Your task to perform on an android device: Is it going to rain today? Image 0: 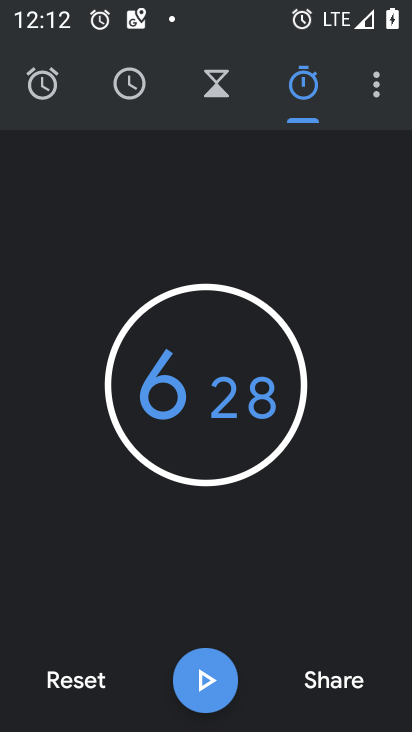
Step 0: press home button
Your task to perform on an android device: Is it going to rain today? Image 1: 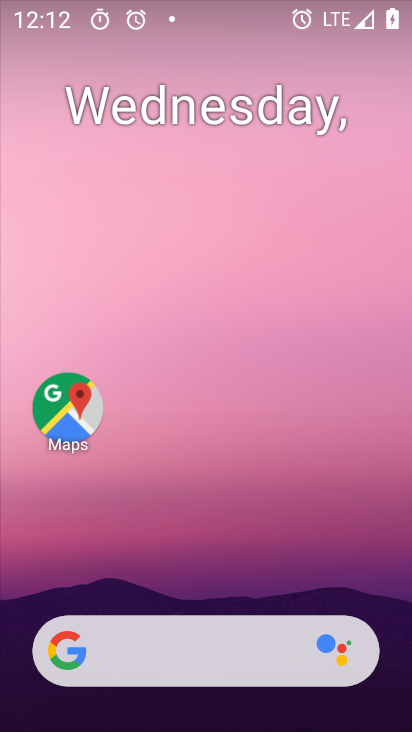
Step 1: drag from (42, 262) to (255, 279)
Your task to perform on an android device: Is it going to rain today? Image 2: 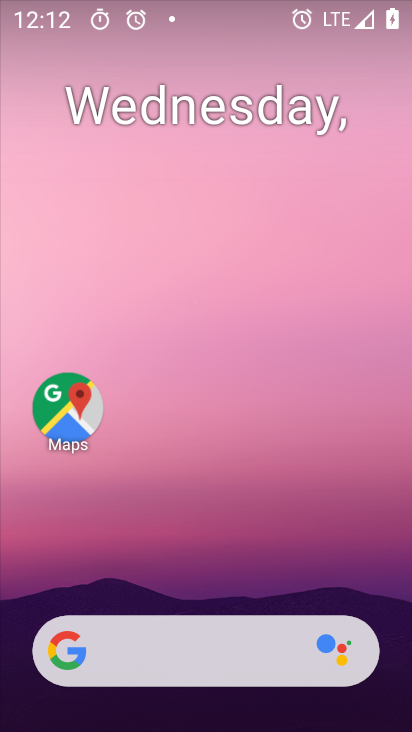
Step 2: drag from (30, 311) to (319, 316)
Your task to perform on an android device: Is it going to rain today? Image 3: 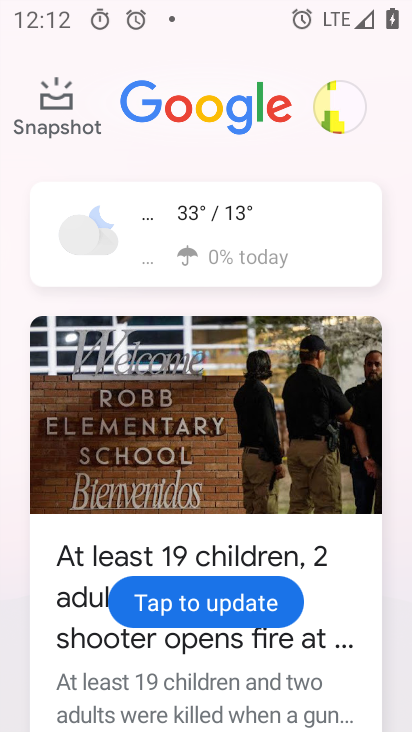
Step 3: click (98, 252)
Your task to perform on an android device: Is it going to rain today? Image 4: 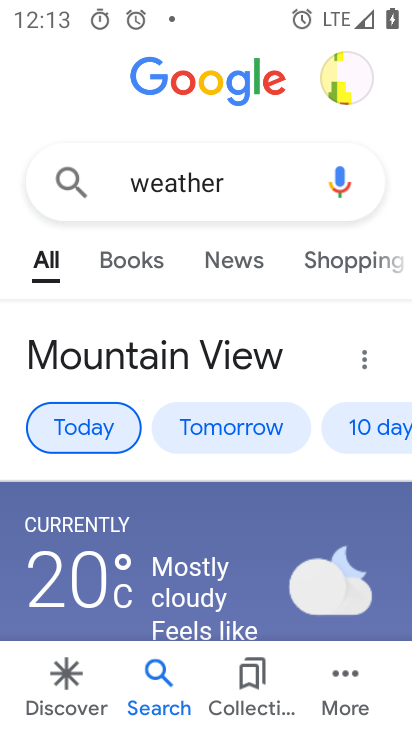
Step 4: task complete